Your task to perform on an android device: Open notification settings Image 0: 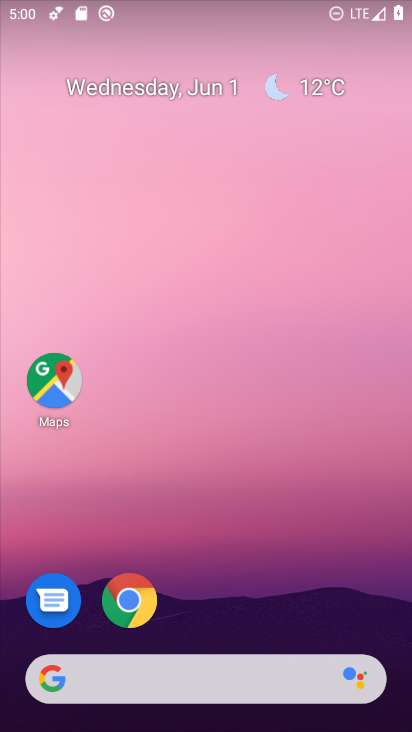
Step 0: drag from (348, 605) to (315, 131)
Your task to perform on an android device: Open notification settings Image 1: 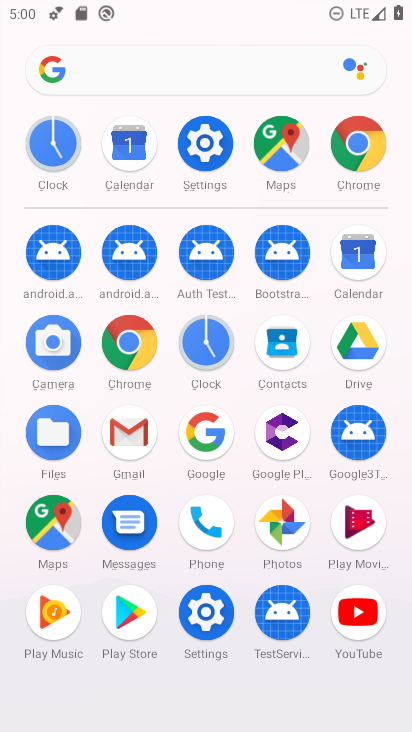
Step 1: click (205, 612)
Your task to perform on an android device: Open notification settings Image 2: 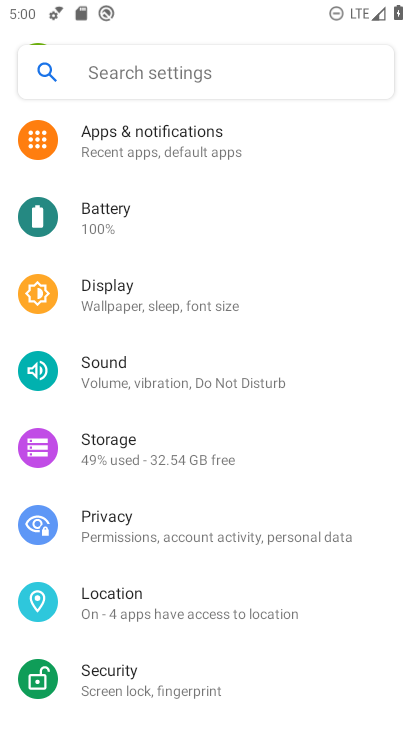
Step 2: click (131, 126)
Your task to perform on an android device: Open notification settings Image 3: 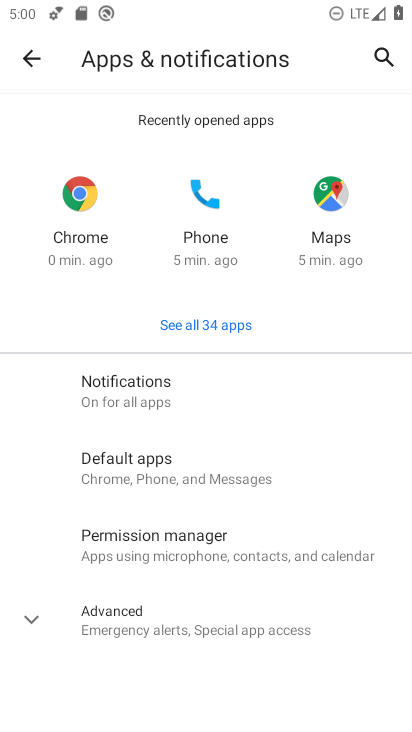
Step 3: click (132, 395)
Your task to perform on an android device: Open notification settings Image 4: 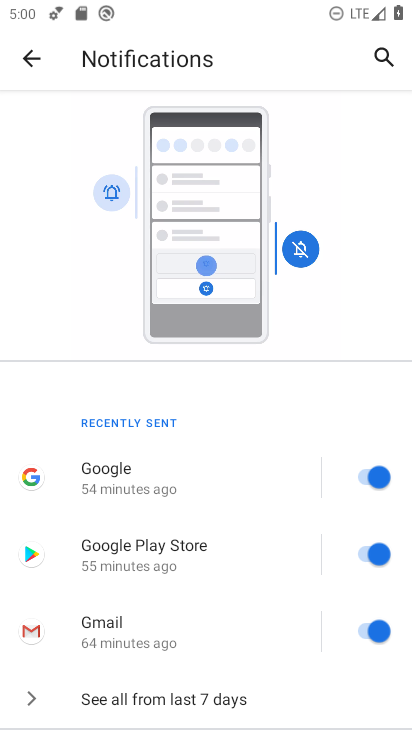
Step 4: drag from (277, 644) to (247, 200)
Your task to perform on an android device: Open notification settings Image 5: 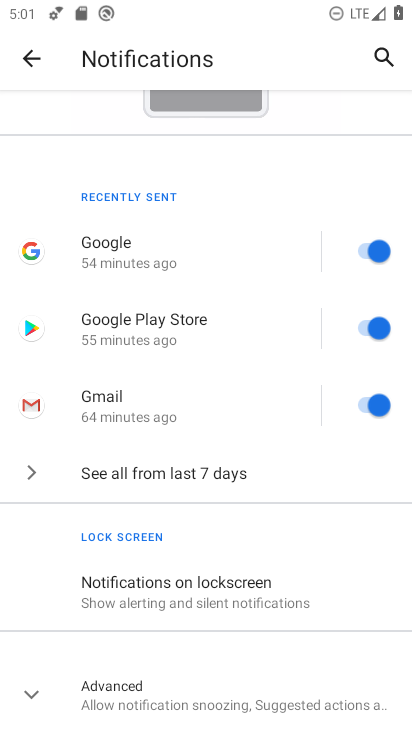
Step 5: drag from (240, 638) to (253, 291)
Your task to perform on an android device: Open notification settings Image 6: 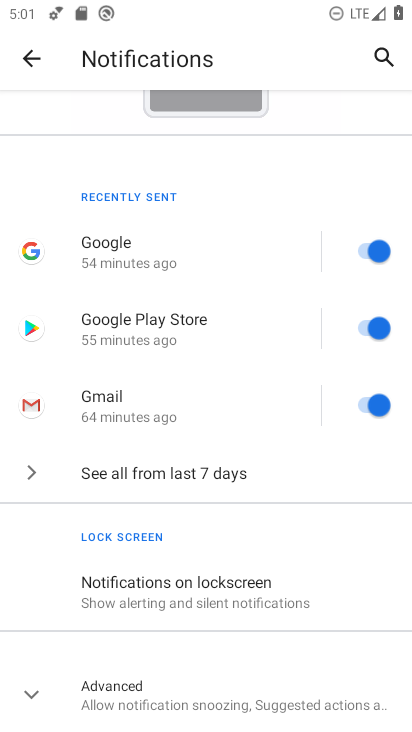
Step 6: click (33, 685)
Your task to perform on an android device: Open notification settings Image 7: 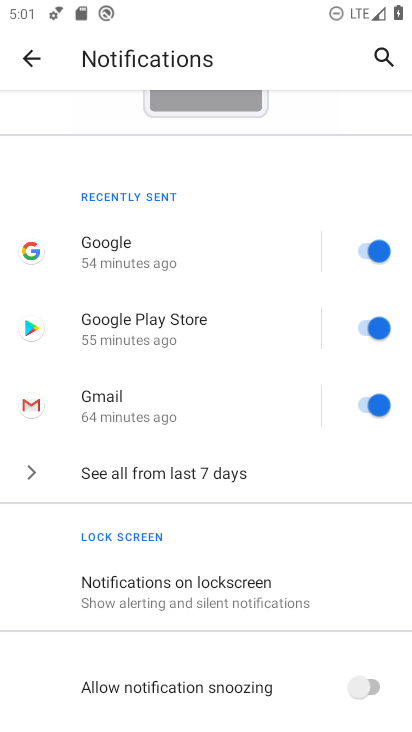
Step 7: task complete